Your task to perform on an android device: empty trash in google photos Image 0: 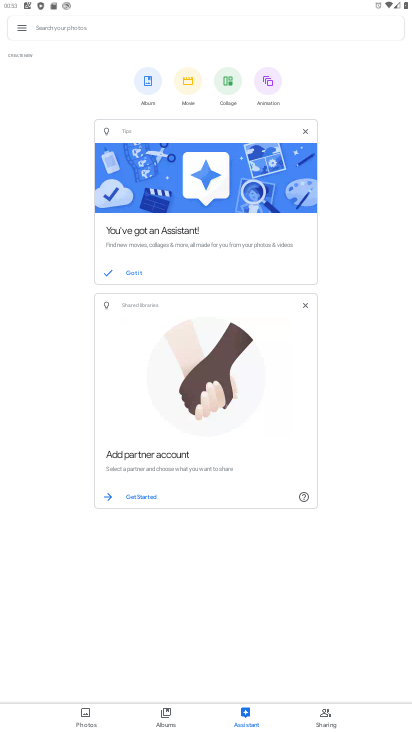
Step 0: press home button
Your task to perform on an android device: empty trash in google photos Image 1: 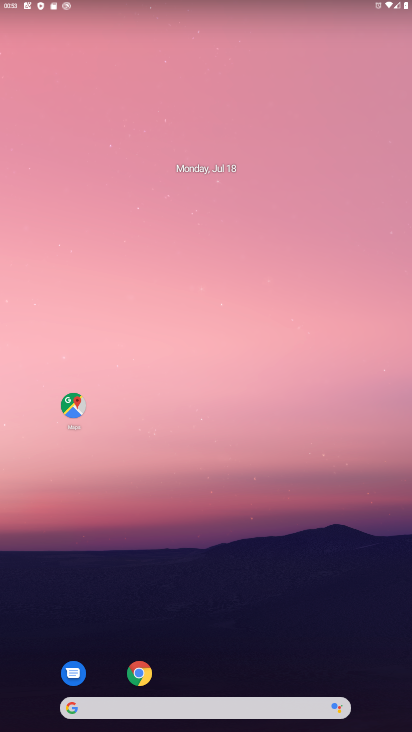
Step 1: drag from (211, 656) to (215, 110)
Your task to perform on an android device: empty trash in google photos Image 2: 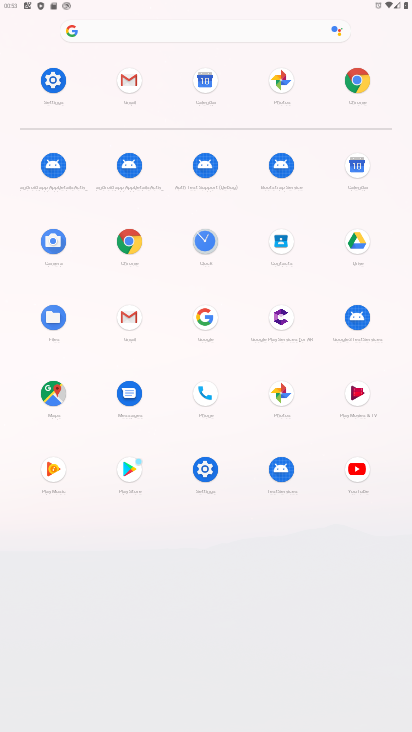
Step 2: click (285, 412)
Your task to perform on an android device: empty trash in google photos Image 3: 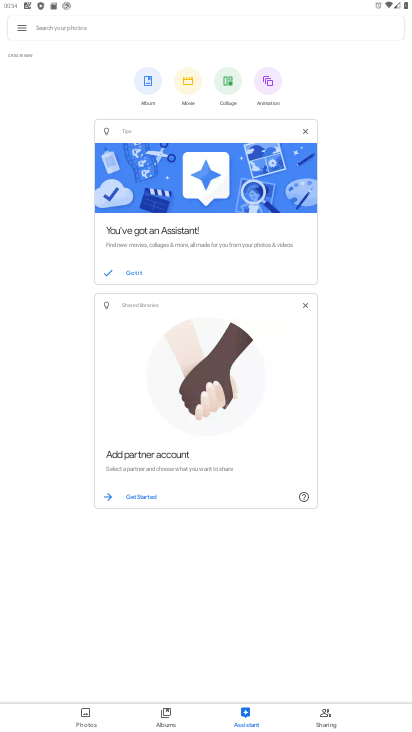
Step 3: click (21, 33)
Your task to perform on an android device: empty trash in google photos Image 4: 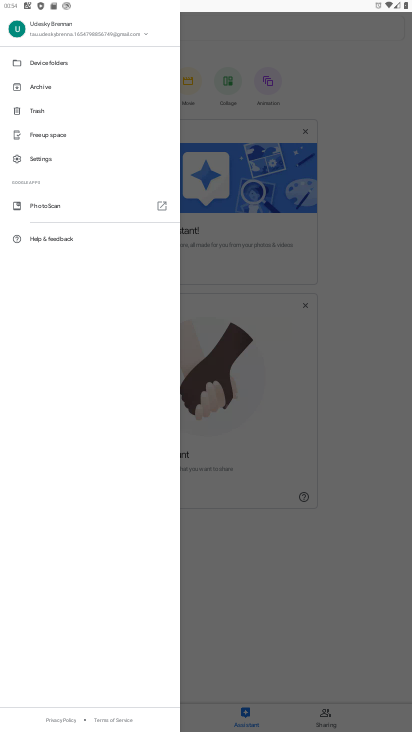
Step 4: task complete